Your task to perform on an android device: Open notification settings Image 0: 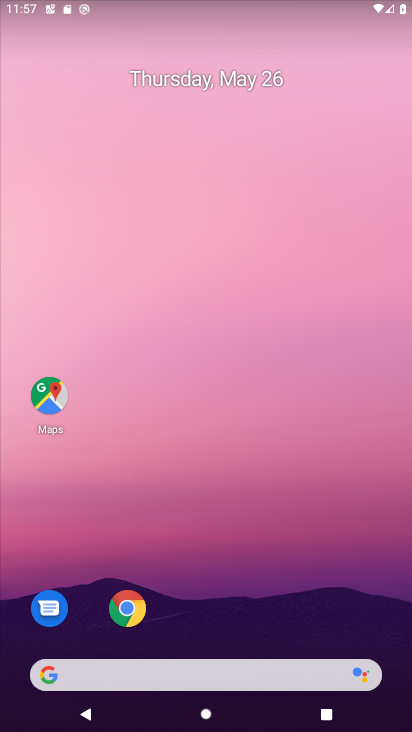
Step 0: drag from (391, 688) to (349, 255)
Your task to perform on an android device: Open notification settings Image 1: 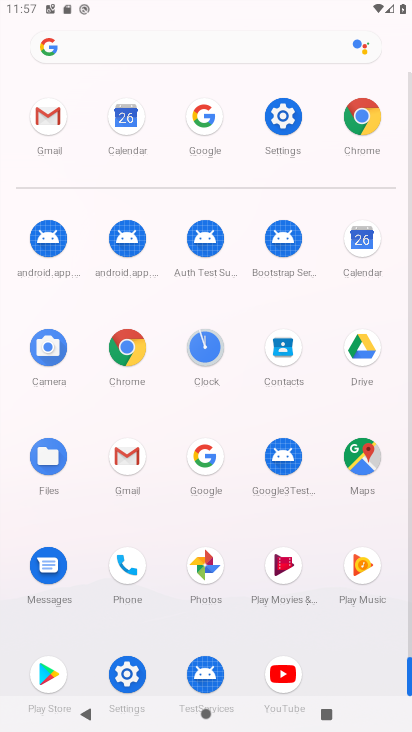
Step 1: click (270, 120)
Your task to perform on an android device: Open notification settings Image 2: 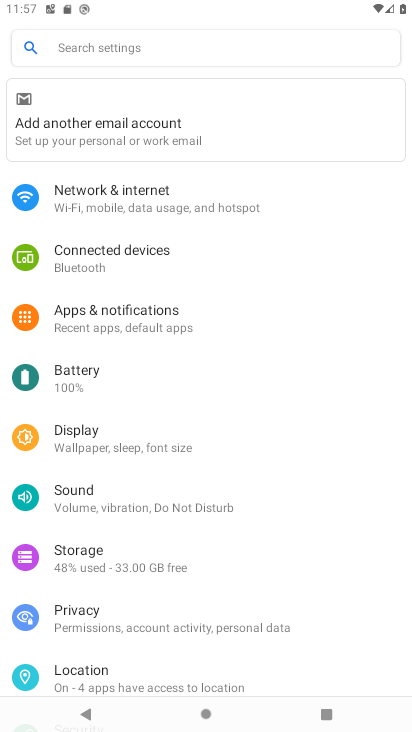
Step 2: click (100, 199)
Your task to perform on an android device: Open notification settings Image 3: 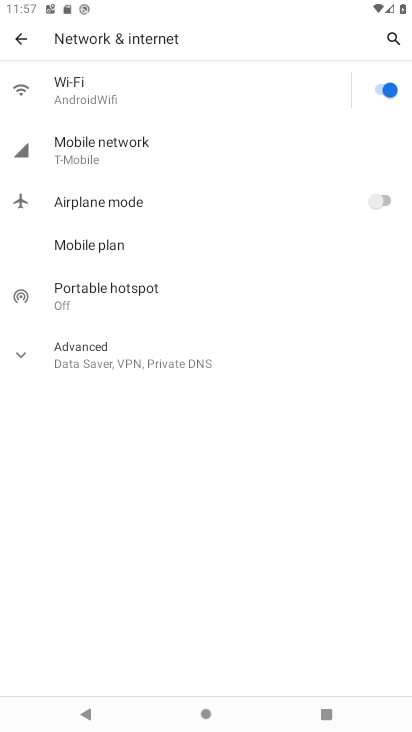
Step 3: drag from (282, 110) to (302, 496)
Your task to perform on an android device: Open notification settings Image 4: 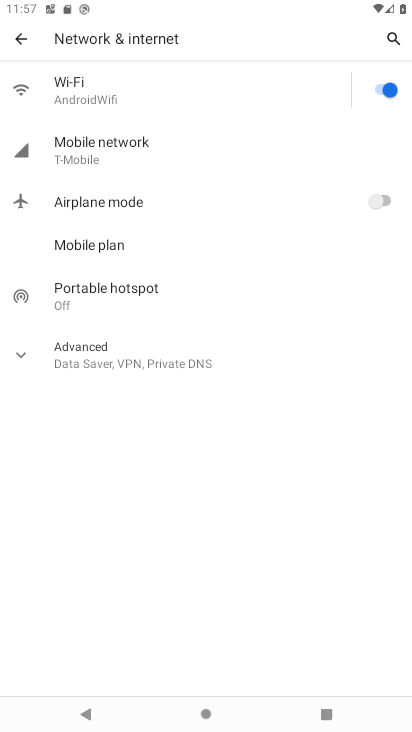
Step 4: click (19, 38)
Your task to perform on an android device: Open notification settings Image 5: 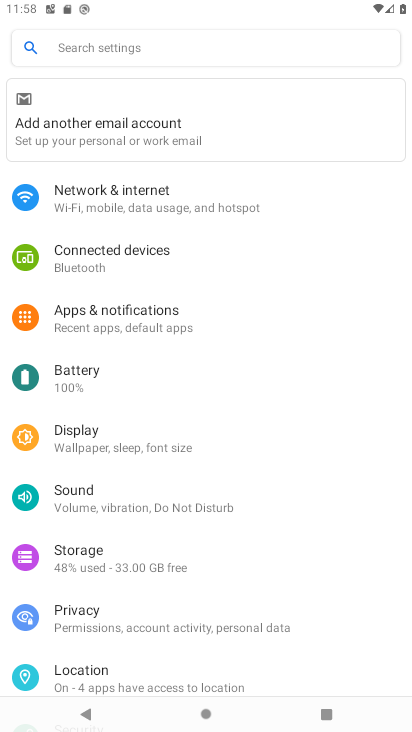
Step 5: click (91, 316)
Your task to perform on an android device: Open notification settings Image 6: 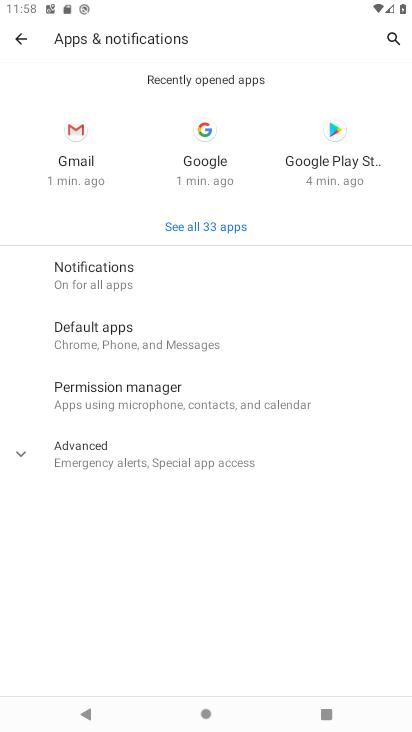
Step 6: click (95, 275)
Your task to perform on an android device: Open notification settings Image 7: 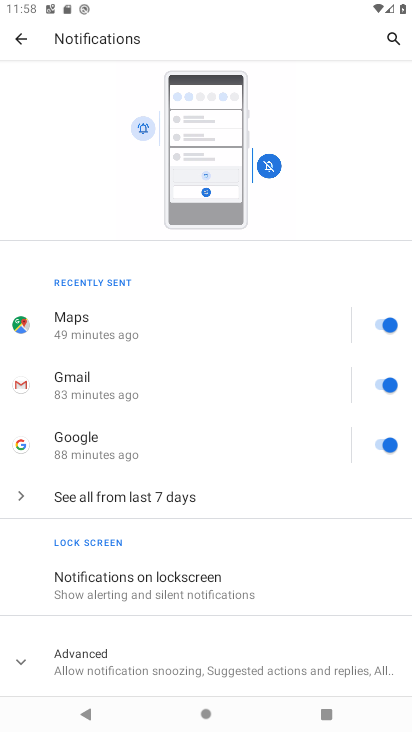
Step 7: drag from (220, 661) to (212, 359)
Your task to perform on an android device: Open notification settings Image 8: 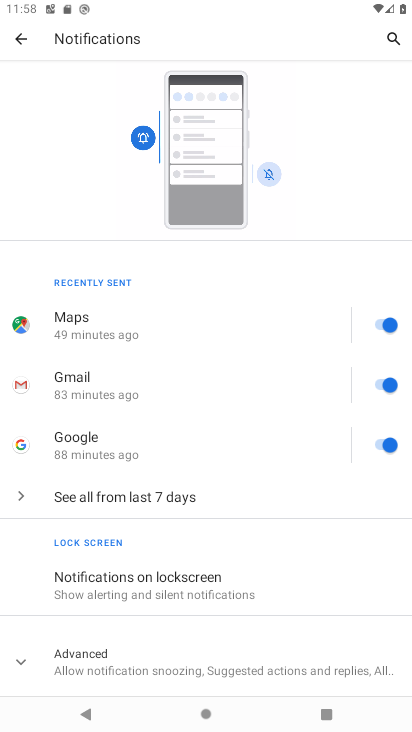
Step 8: click (2, 665)
Your task to perform on an android device: Open notification settings Image 9: 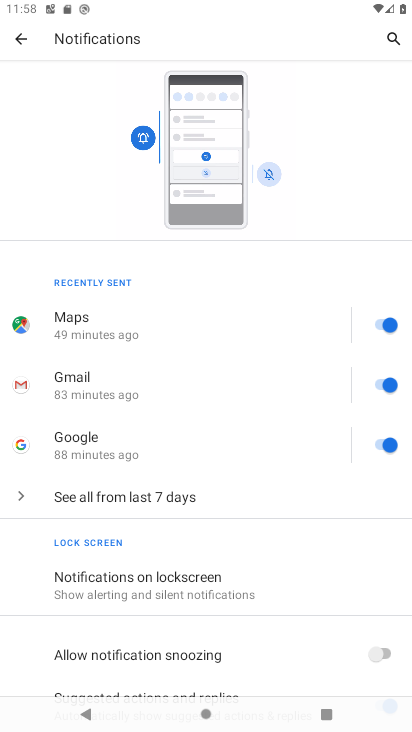
Step 9: task complete